Your task to perform on an android device: visit the assistant section in the google photos Image 0: 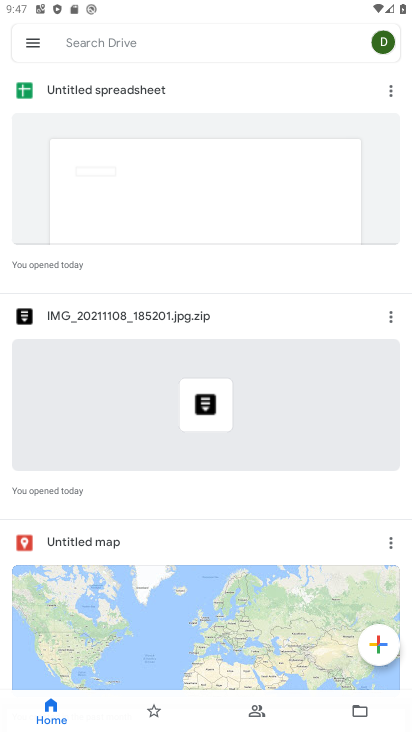
Step 0: press home button
Your task to perform on an android device: visit the assistant section in the google photos Image 1: 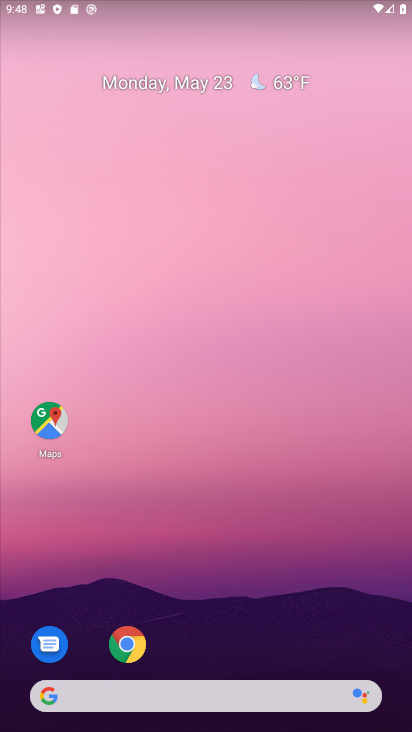
Step 1: drag from (198, 650) to (256, 199)
Your task to perform on an android device: visit the assistant section in the google photos Image 2: 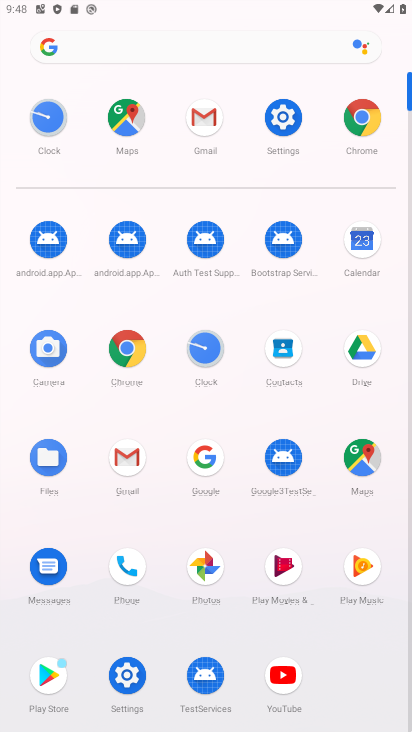
Step 2: click (203, 552)
Your task to perform on an android device: visit the assistant section in the google photos Image 3: 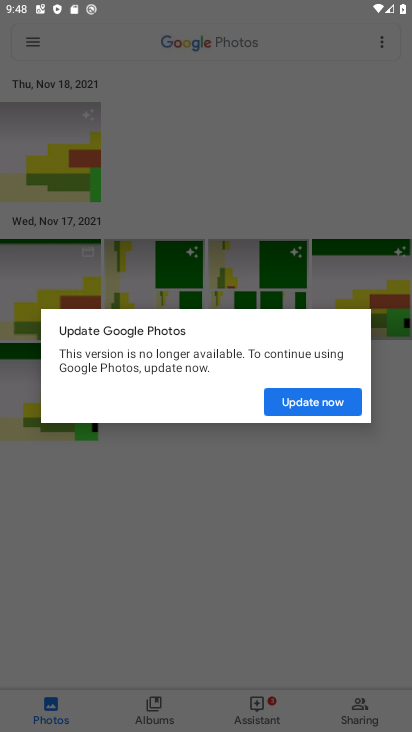
Step 3: click (316, 402)
Your task to perform on an android device: visit the assistant section in the google photos Image 4: 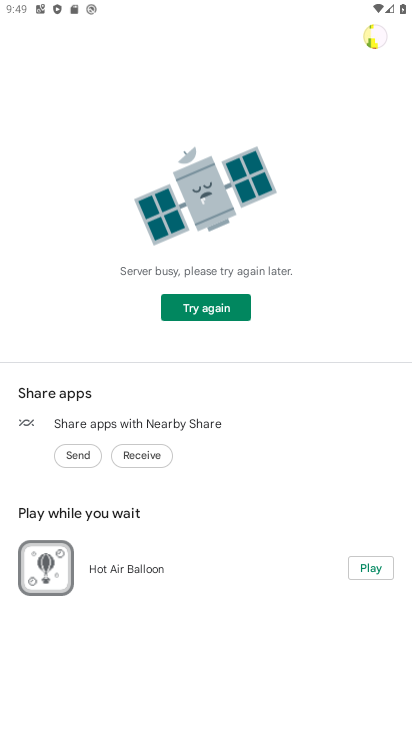
Step 4: task complete